Your task to perform on an android device: Go to settings Image 0: 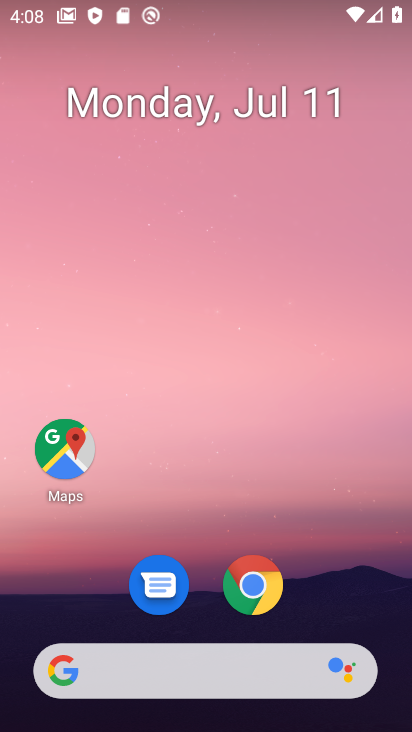
Step 0: drag from (344, 515) to (334, 46)
Your task to perform on an android device: Go to settings Image 1: 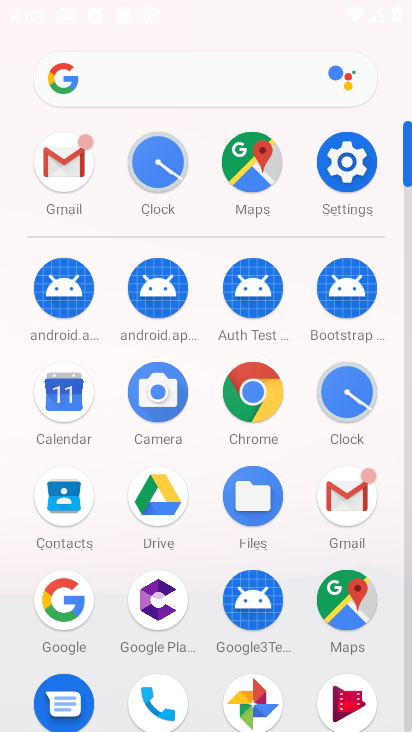
Step 1: click (327, 159)
Your task to perform on an android device: Go to settings Image 2: 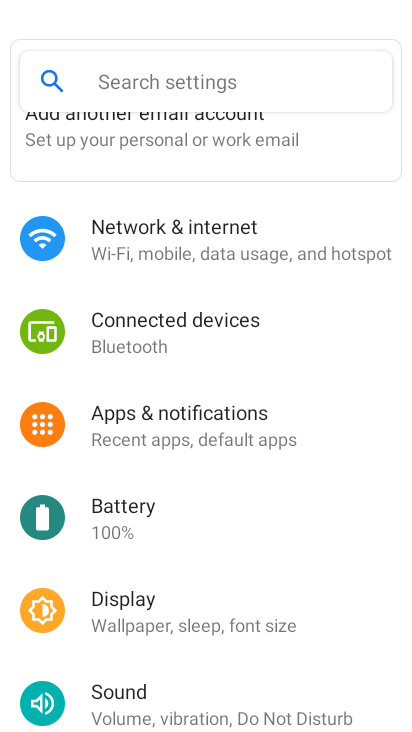
Step 2: task complete